Your task to perform on an android device: Go to CNN.com Image 0: 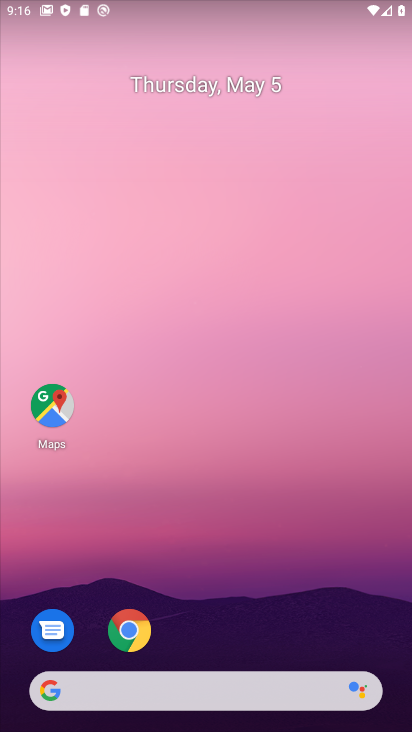
Step 0: click (163, 685)
Your task to perform on an android device: Go to CNN.com Image 1: 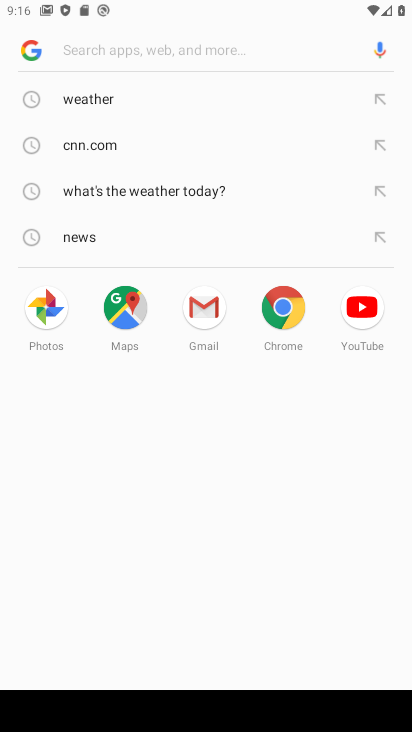
Step 1: click (114, 153)
Your task to perform on an android device: Go to CNN.com Image 2: 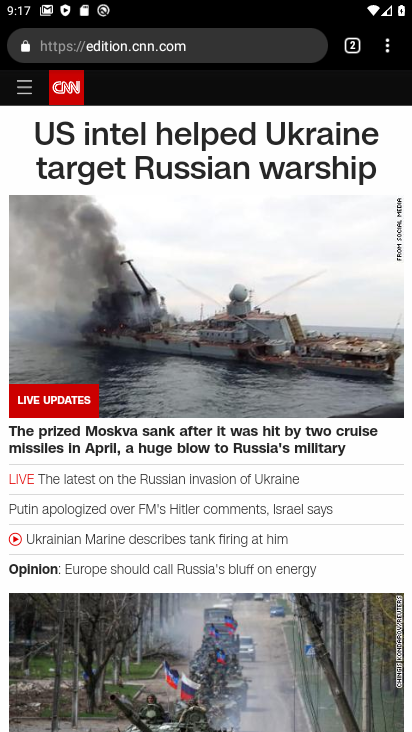
Step 2: task complete